Your task to perform on an android device: check the backup settings in the google photos Image 0: 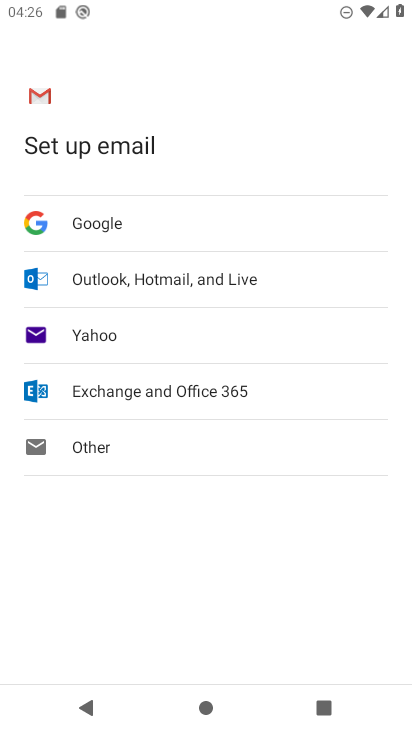
Step 0: press home button
Your task to perform on an android device: check the backup settings in the google photos Image 1: 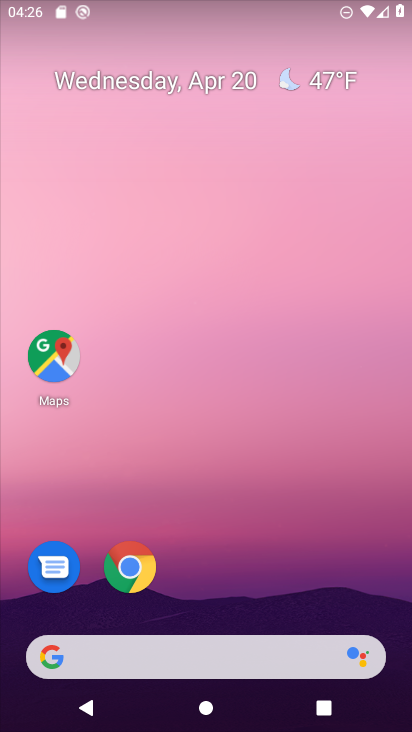
Step 1: drag from (241, 607) to (244, 147)
Your task to perform on an android device: check the backup settings in the google photos Image 2: 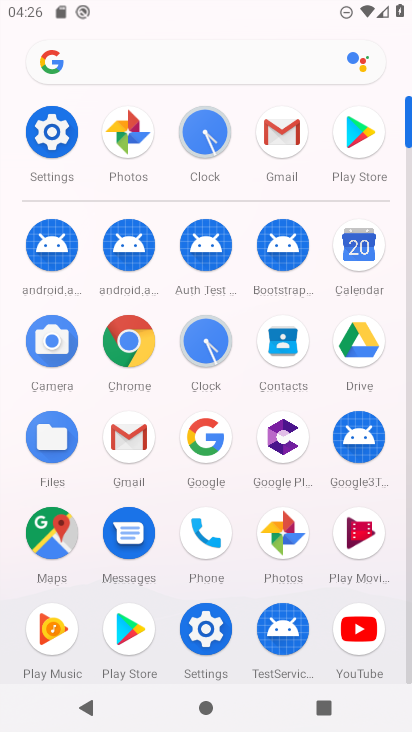
Step 2: click (138, 127)
Your task to perform on an android device: check the backup settings in the google photos Image 3: 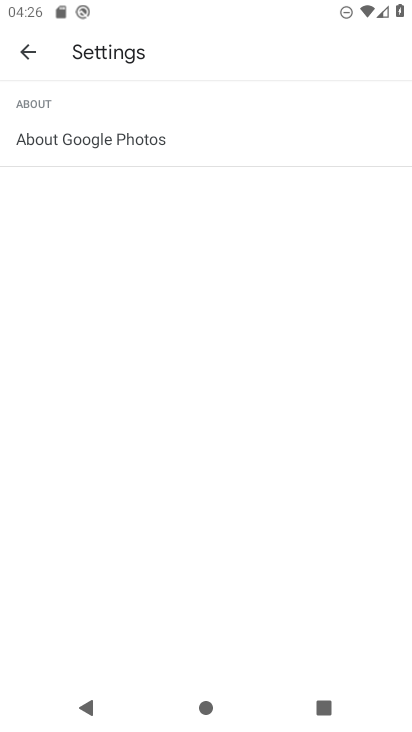
Step 3: click (27, 43)
Your task to perform on an android device: check the backup settings in the google photos Image 4: 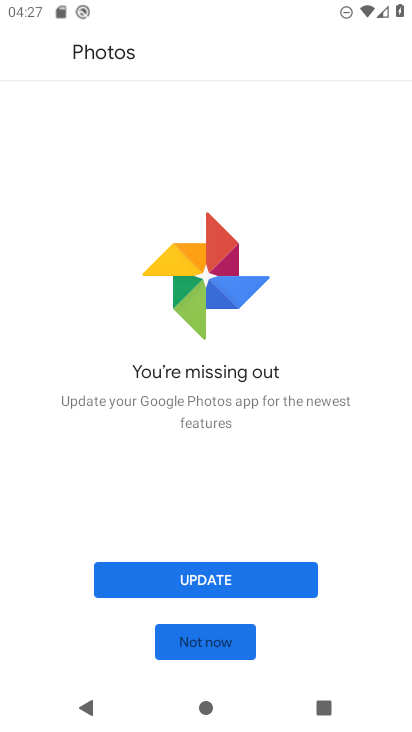
Step 4: click (201, 644)
Your task to perform on an android device: check the backup settings in the google photos Image 5: 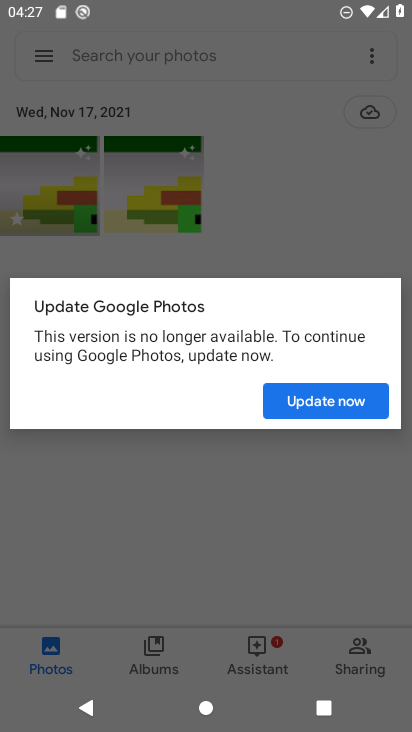
Step 5: click (345, 409)
Your task to perform on an android device: check the backup settings in the google photos Image 6: 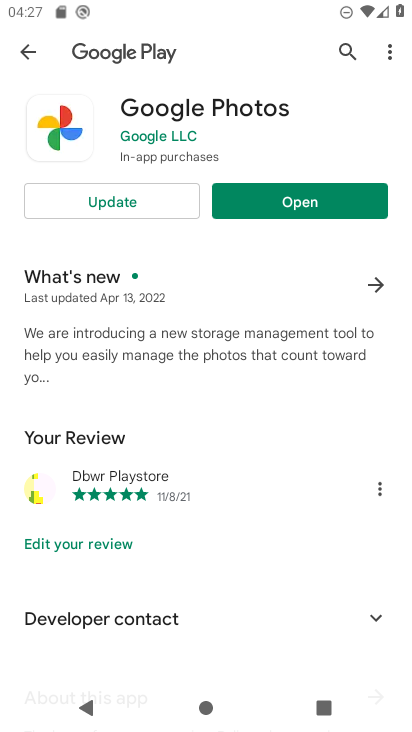
Step 6: click (263, 197)
Your task to perform on an android device: check the backup settings in the google photos Image 7: 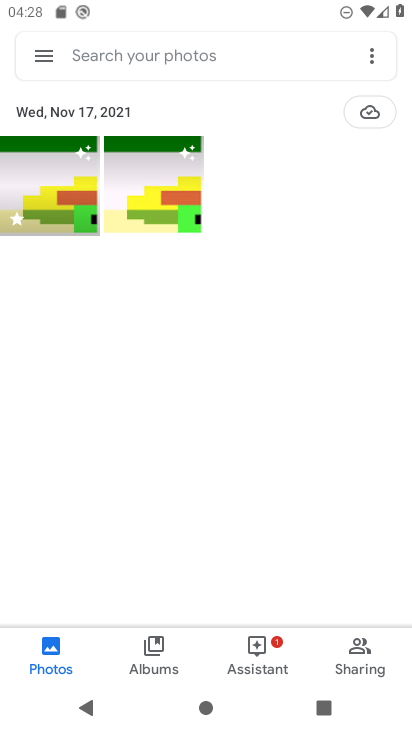
Step 7: click (36, 58)
Your task to perform on an android device: check the backup settings in the google photos Image 8: 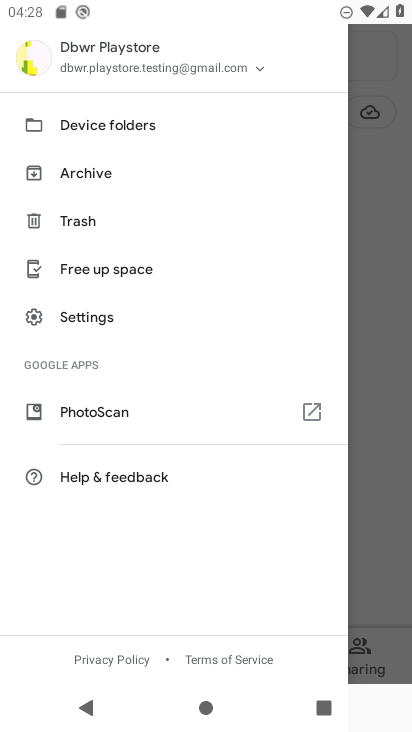
Step 8: click (78, 314)
Your task to perform on an android device: check the backup settings in the google photos Image 9: 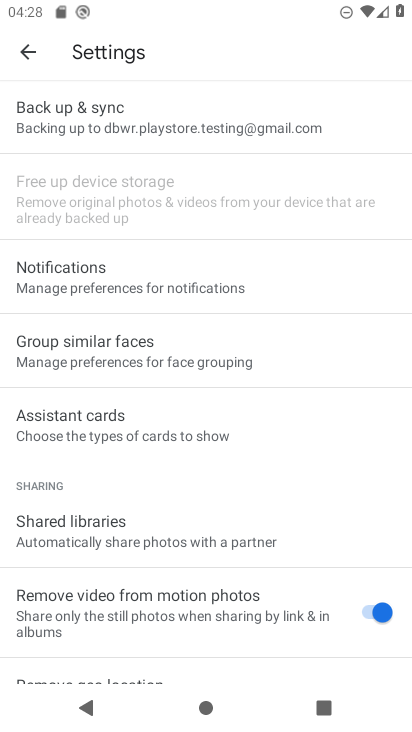
Step 9: click (194, 120)
Your task to perform on an android device: check the backup settings in the google photos Image 10: 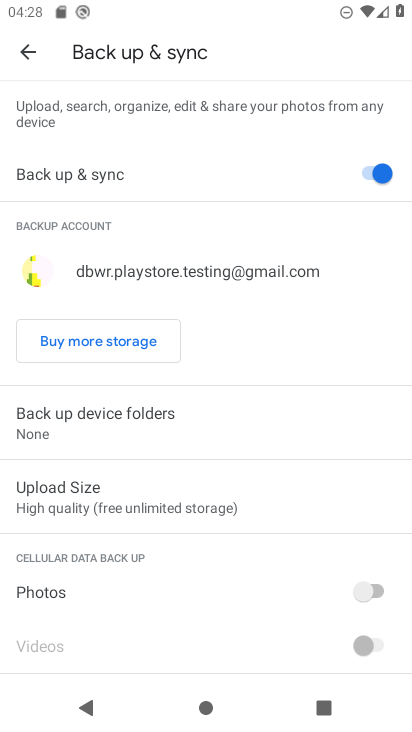
Step 10: task complete